Your task to perform on an android device: Open Reddit.com Image 0: 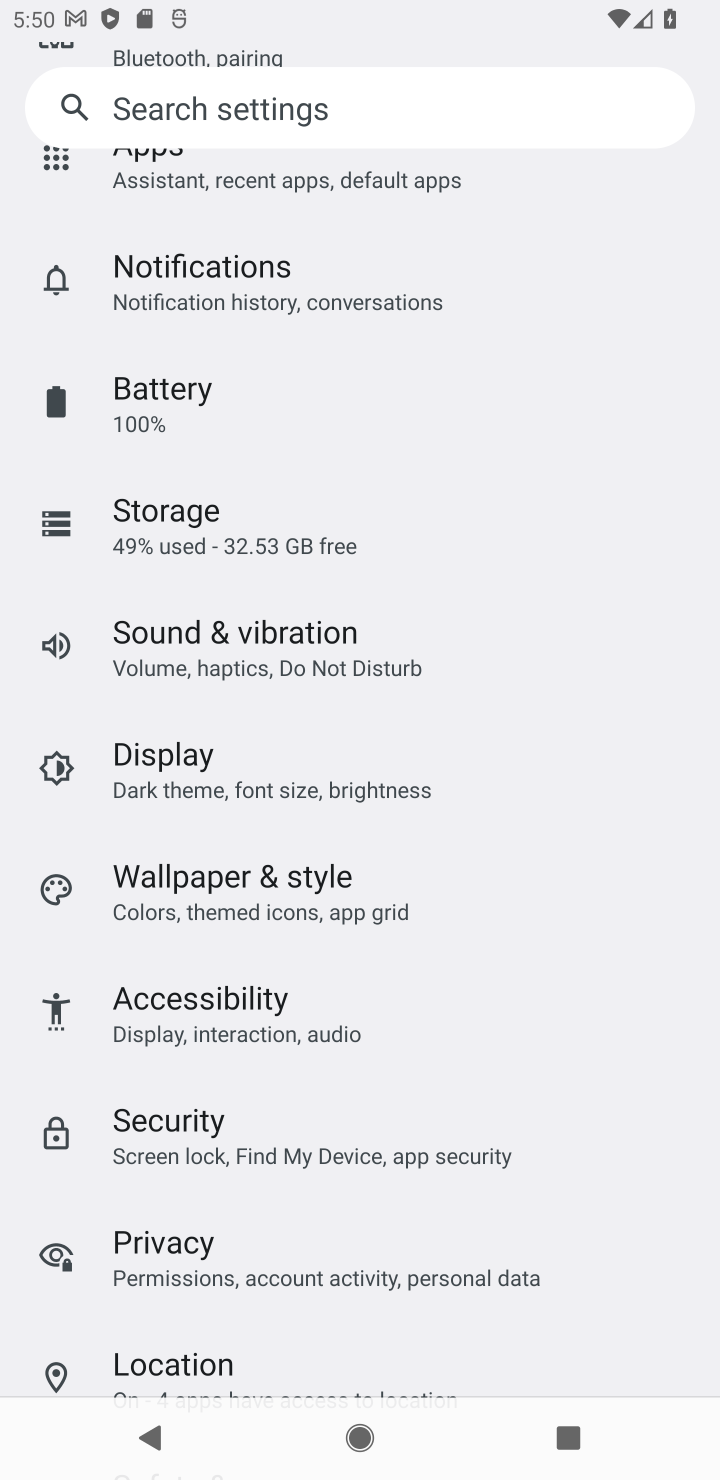
Step 0: press home button
Your task to perform on an android device: Open Reddit.com Image 1: 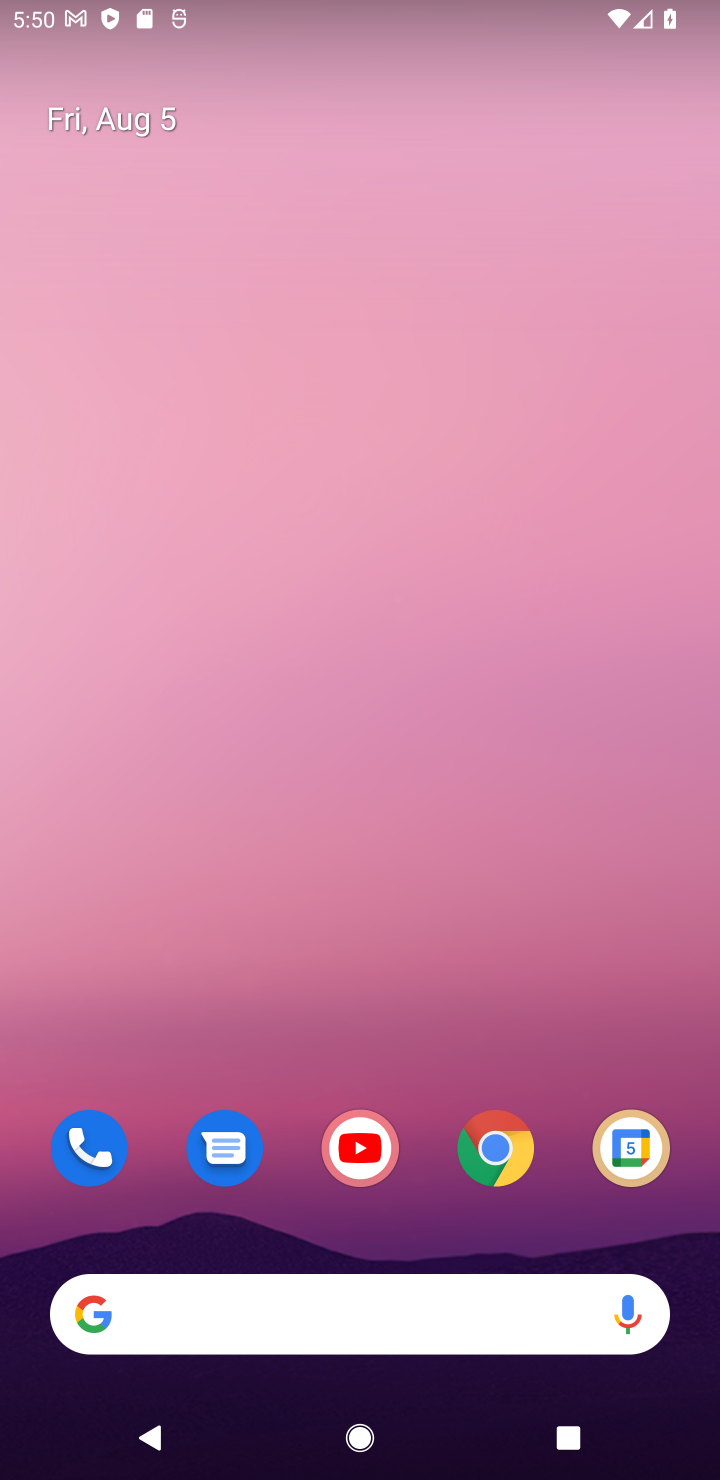
Step 1: click (497, 1147)
Your task to perform on an android device: Open Reddit.com Image 2: 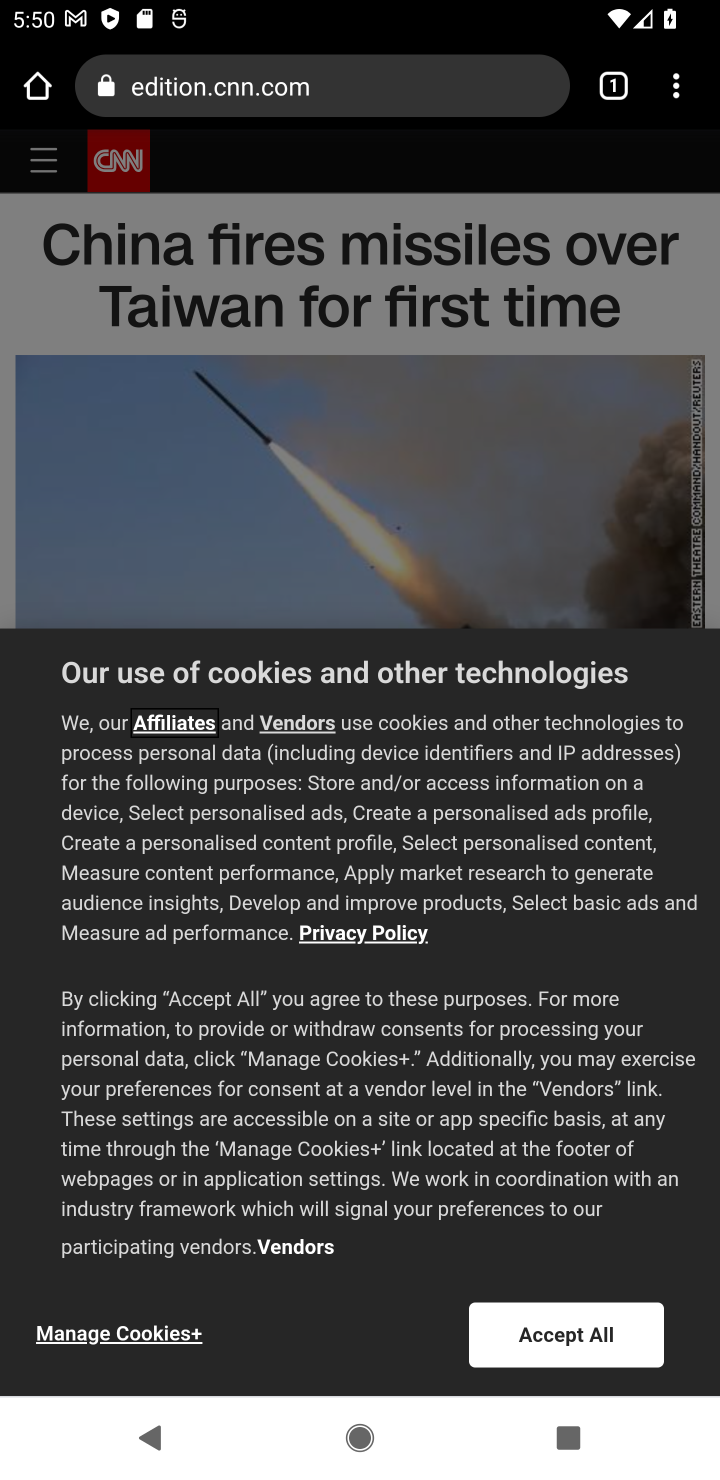
Step 2: click (674, 87)
Your task to perform on an android device: Open Reddit.com Image 3: 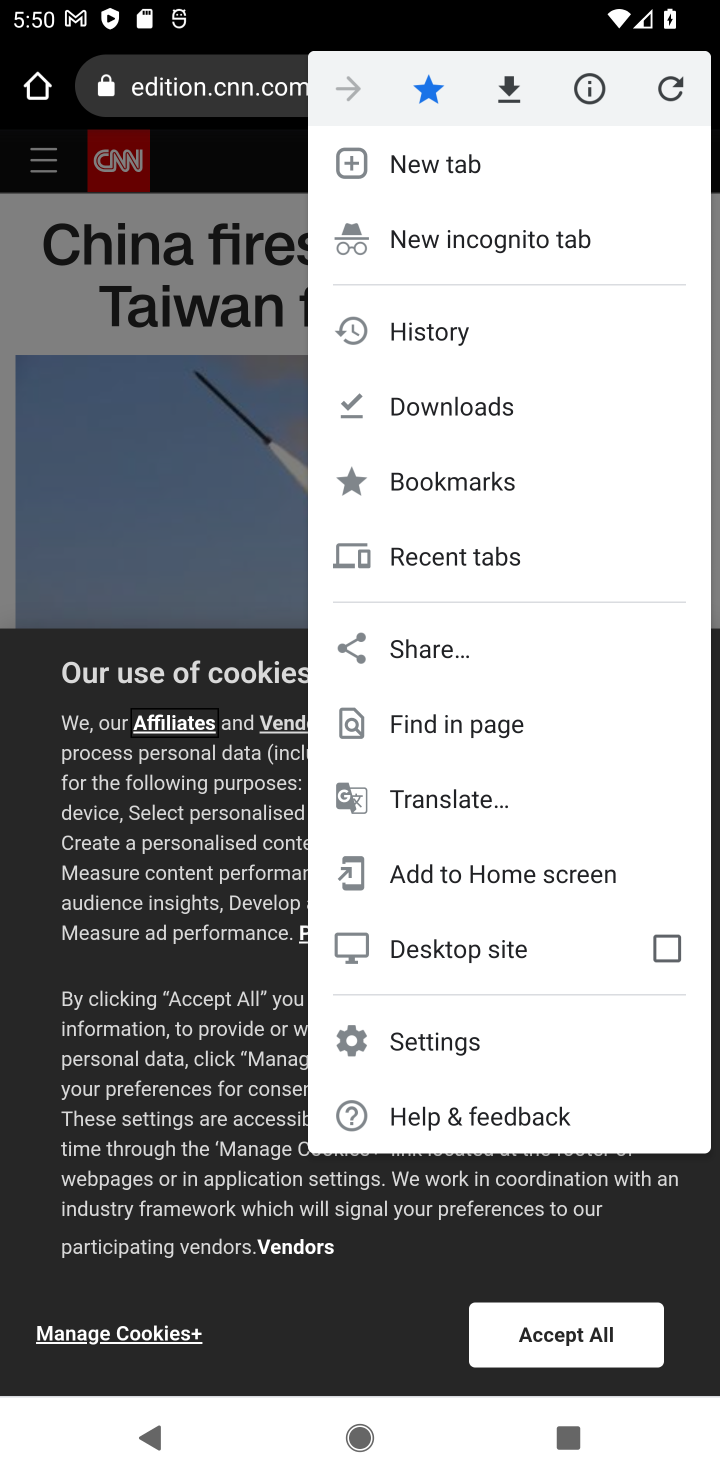
Step 3: click (427, 158)
Your task to perform on an android device: Open Reddit.com Image 4: 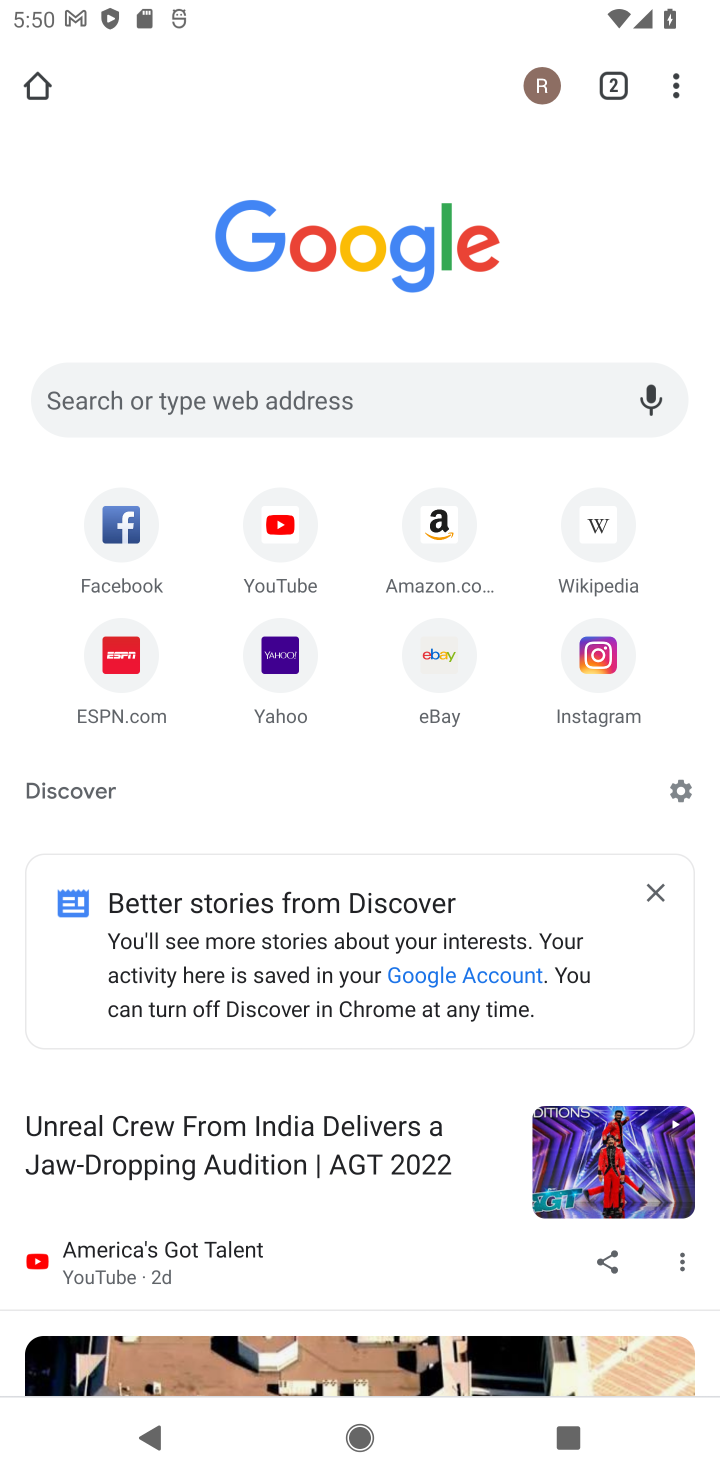
Step 4: click (303, 402)
Your task to perform on an android device: Open Reddit.com Image 5: 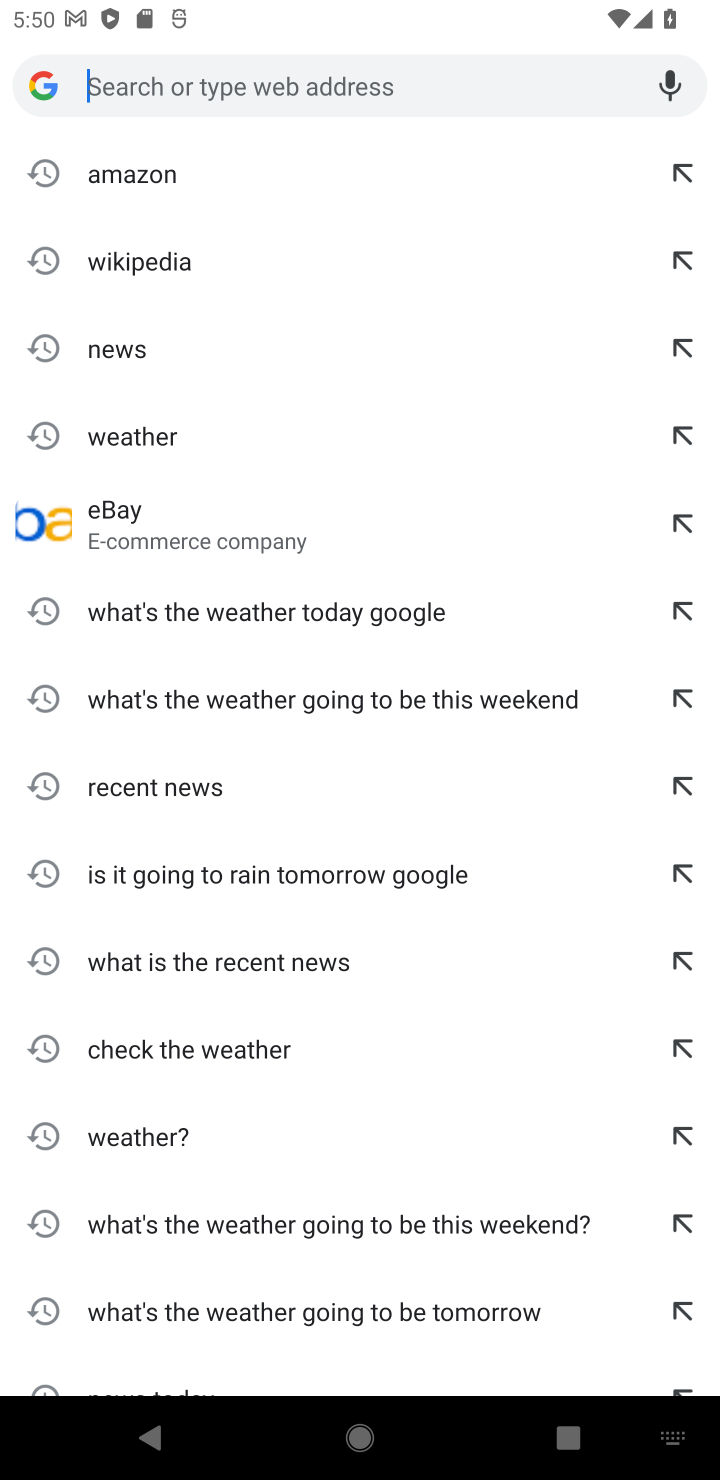
Step 5: type "reddit.com"
Your task to perform on an android device: Open Reddit.com Image 6: 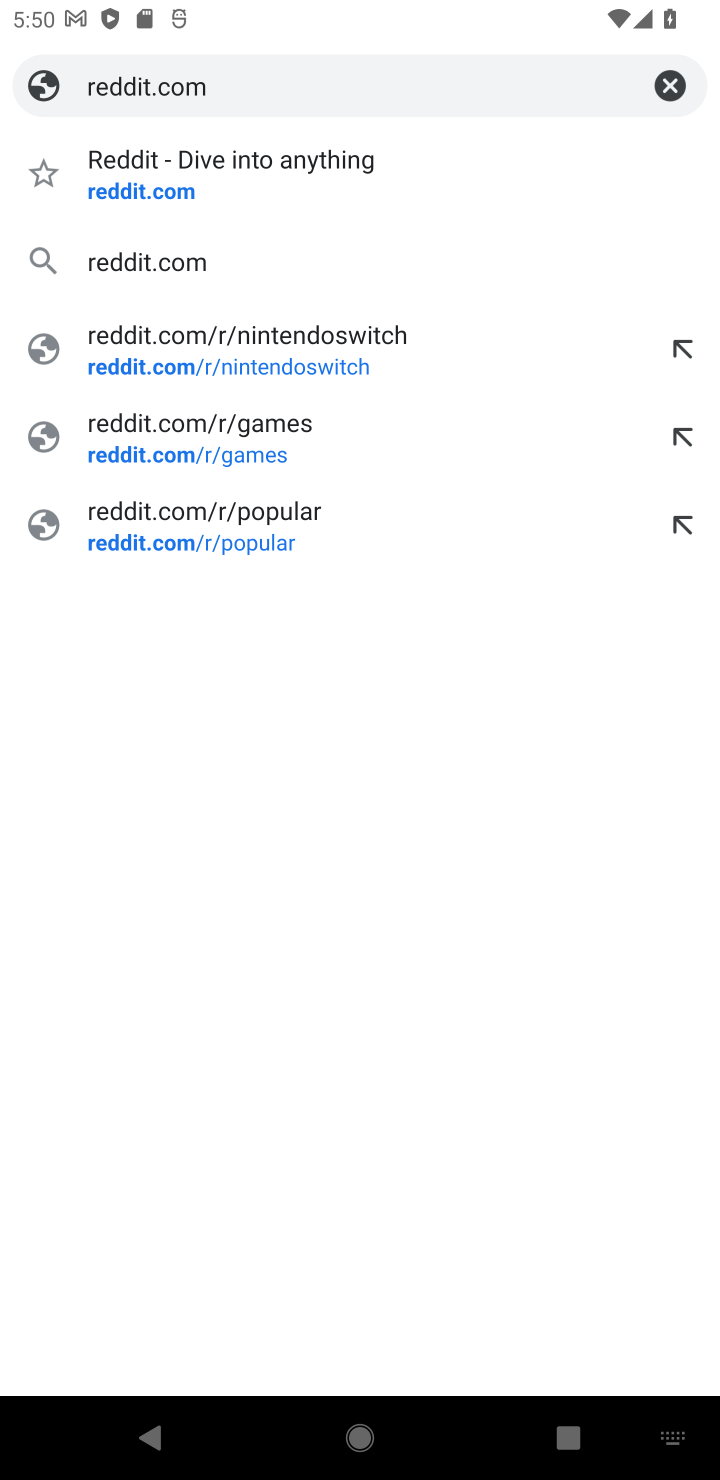
Step 6: click (147, 149)
Your task to perform on an android device: Open Reddit.com Image 7: 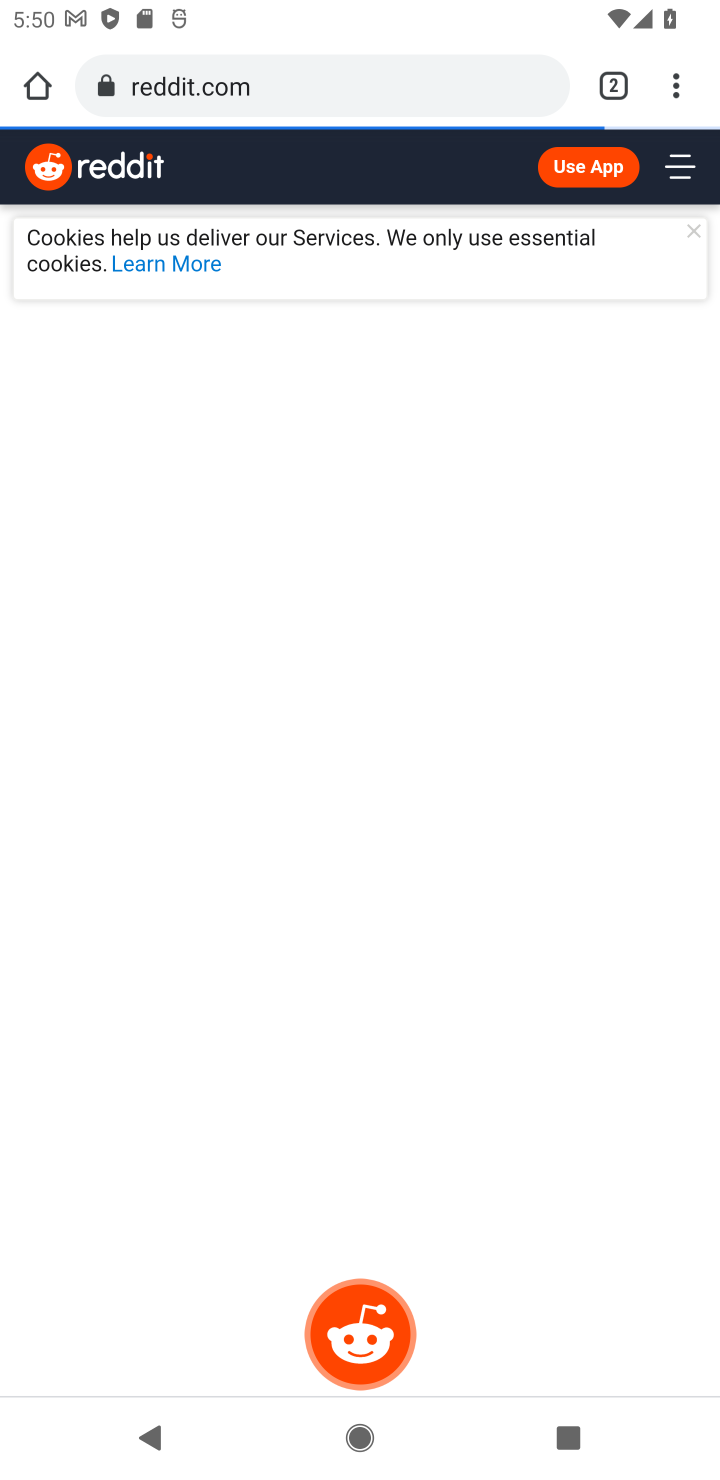
Step 7: task complete